Your task to perform on an android device: Open Google Chrome Image 0: 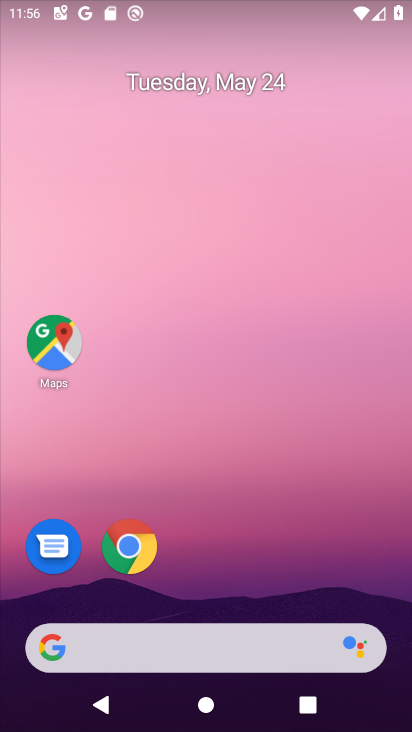
Step 0: click (135, 557)
Your task to perform on an android device: Open Google Chrome Image 1: 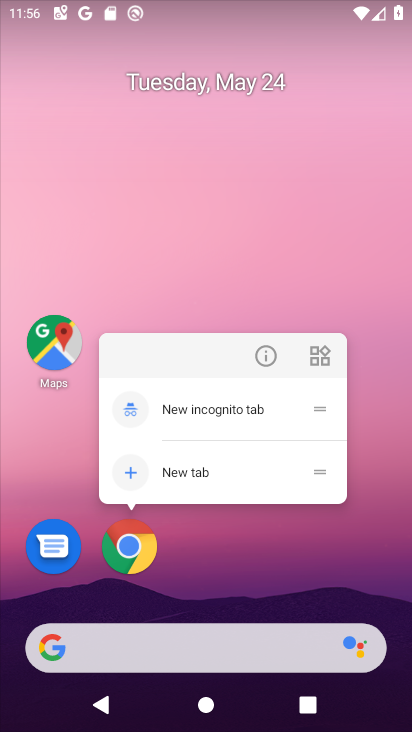
Step 1: click (129, 557)
Your task to perform on an android device: Open Google Chrome Image 2: 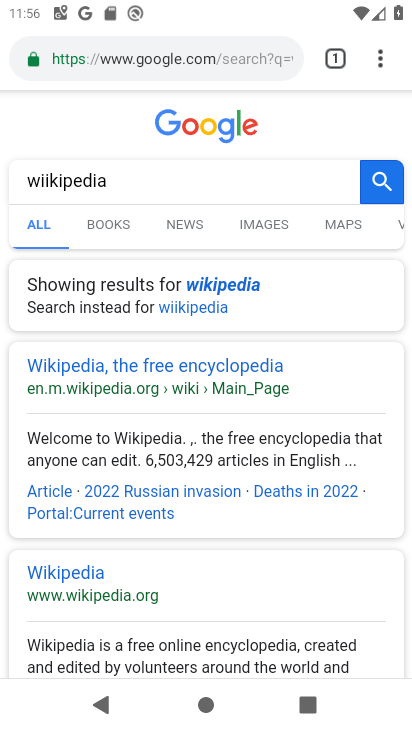
Step 2: task complete